Your task to perform on an android device: set the stopwatch Image 0: 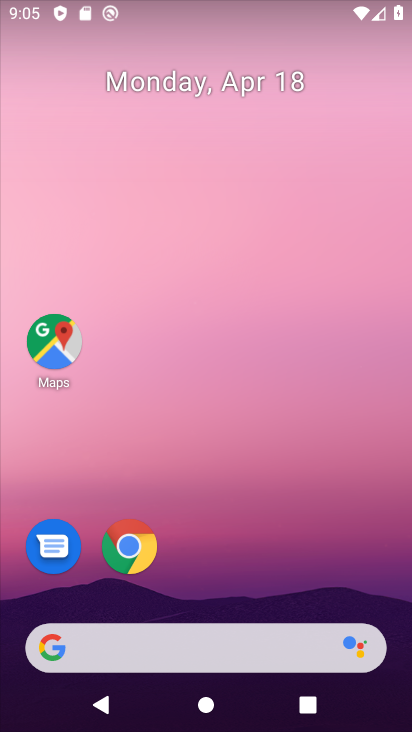
Step 0: click (268, 0)
Your task to perform on an android device: set the stopwatch Image 1: 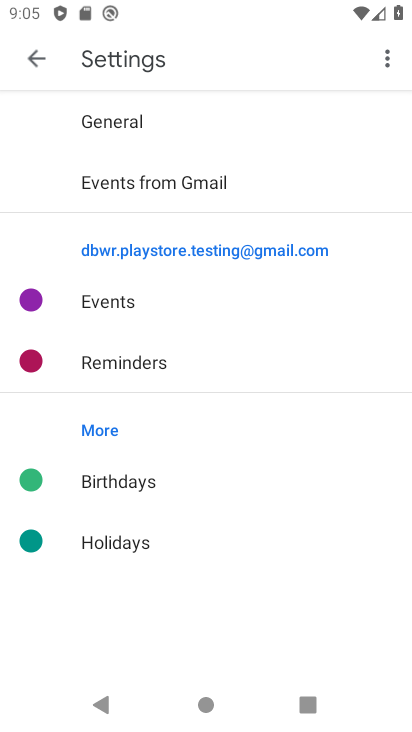
Step 1: click (114, 713)
Your task to perform on an android device: set the stopwatch Image 2: 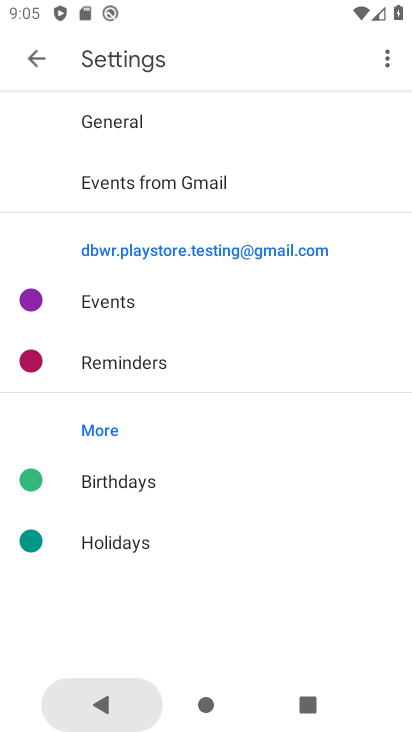
Step 2: click (119, 709)
Your task to perform on an android device: set the stopwatch Image 3: 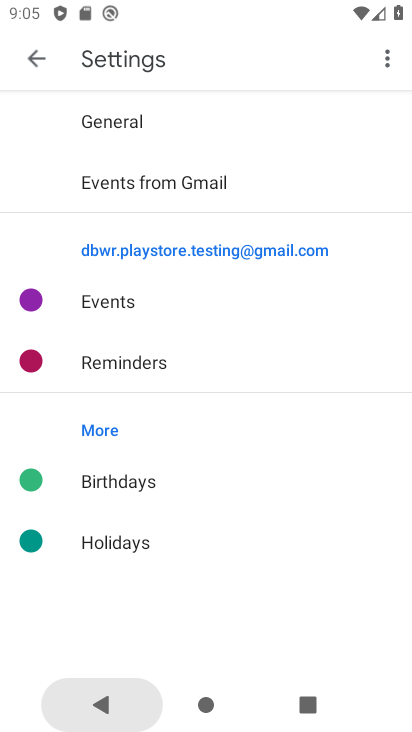
Step 3: click (200, 716)
Your task to perform on an android device: set the stopwatch Image 4: 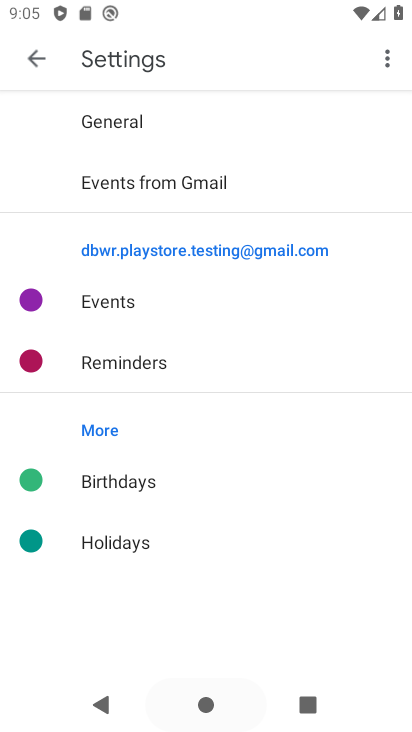
Step 4: click (218, 703)
Your task to perform on an android device: set the stopwatch Image 5: 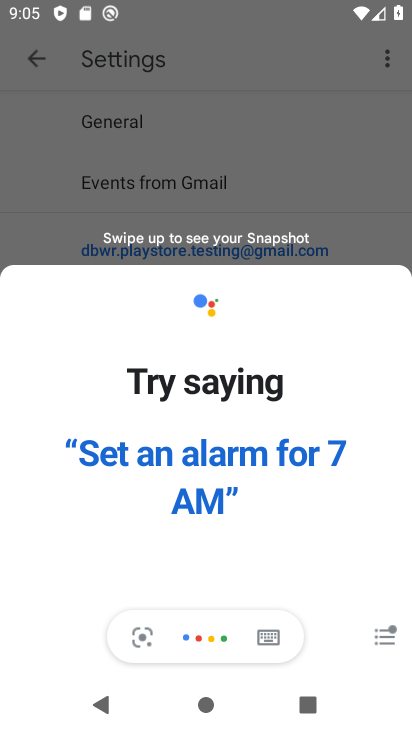
Step 5: drag from (75, 702) to (114, 710)
Your task to perform on an android device: set the stopwatch Image 6: 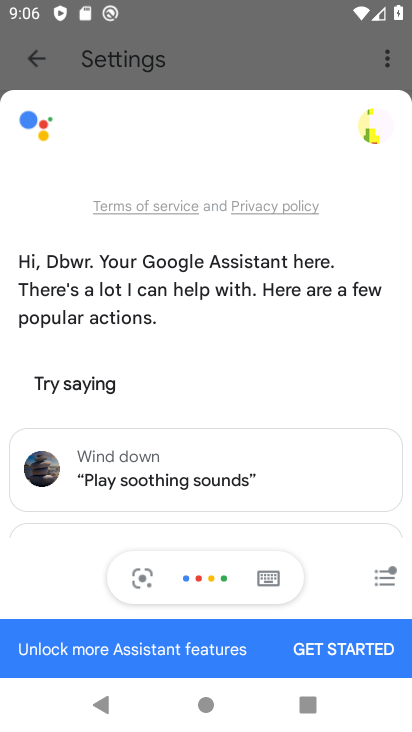
Step 6: press home button
Your task to perform on an android device: set the stopwatch Image 7: 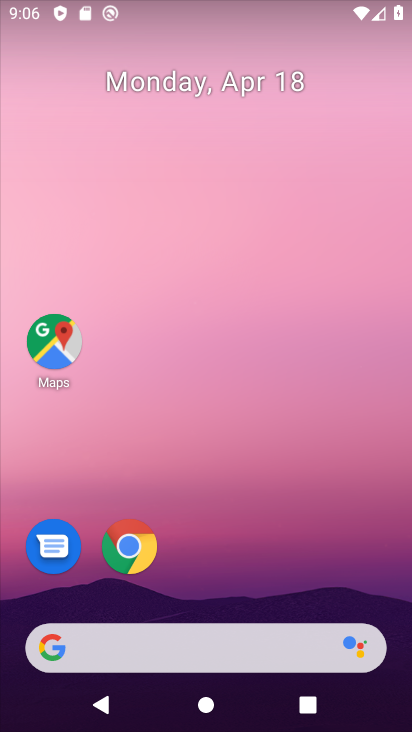
Step 7: drag from (277, 496) to (342, 35)
Your task to perform on an android device: set the stopwatch Image 8: 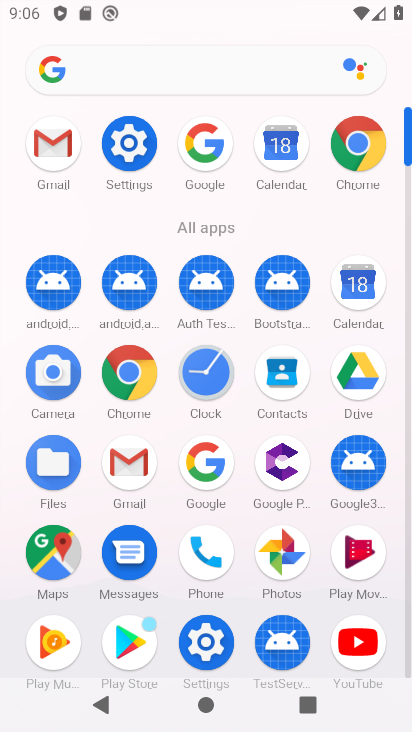
Step 8: click (198, 368)
Your task to perform on an android device: set the stopwatch Image 9: 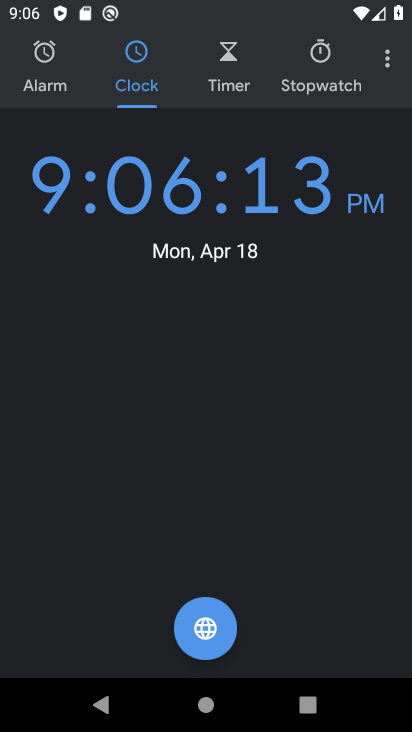
Step 9: click (304, 71)
Your task to perform on an android device: set the stopwatch Image 10: 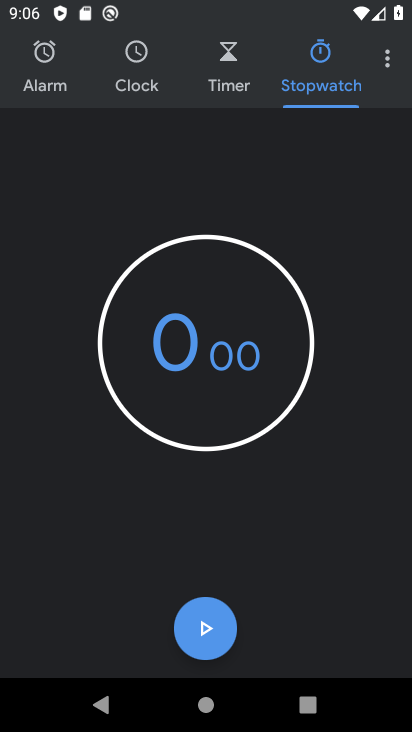
Step 10: click (205, 632)
Your task to perform on an android device: set the stopwatch Image 11: 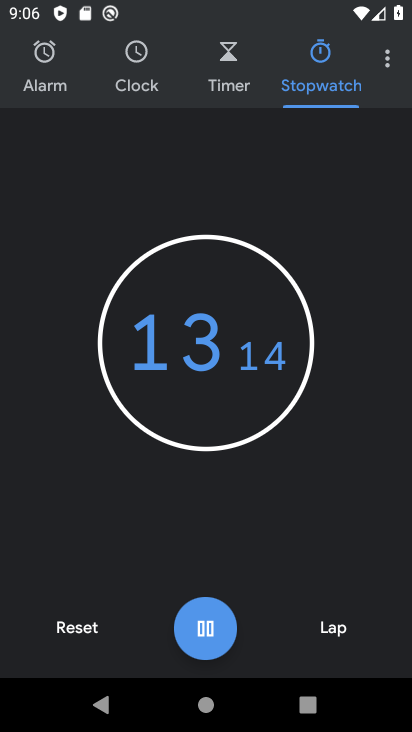
Step 11: task complete